Your task to perform on an android device: What's on my calendar tomorrow? Image 0: 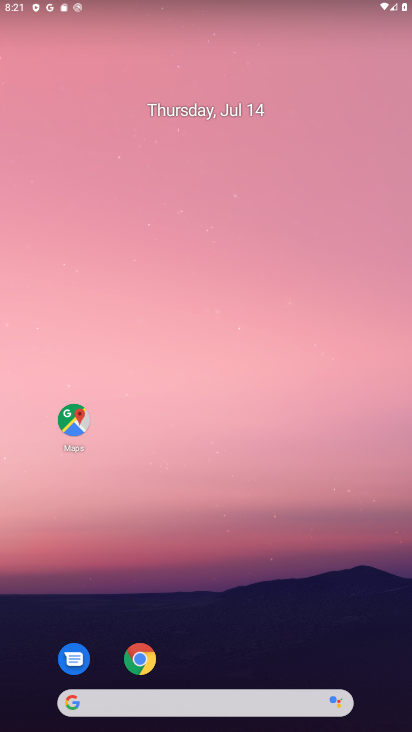
Step 0: drag from (200, 580) to (206, 197)
Your task to perform on an android device: What's on my calendar tomorrow? Image 1: 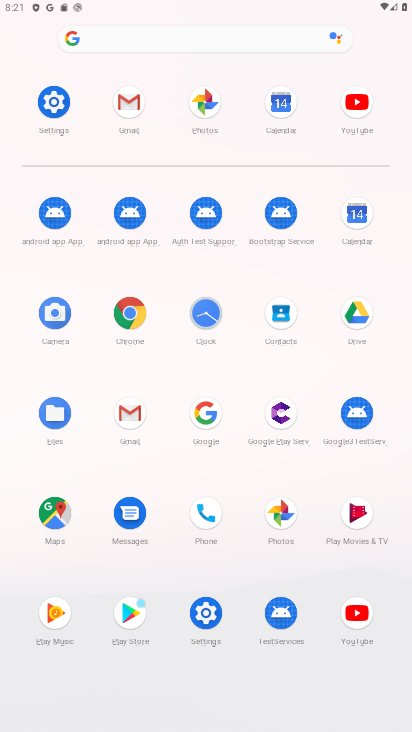
Step 1: click (278, 105)
Your task to perform on an android device: What's on my calendar tomorrow? Image 2: 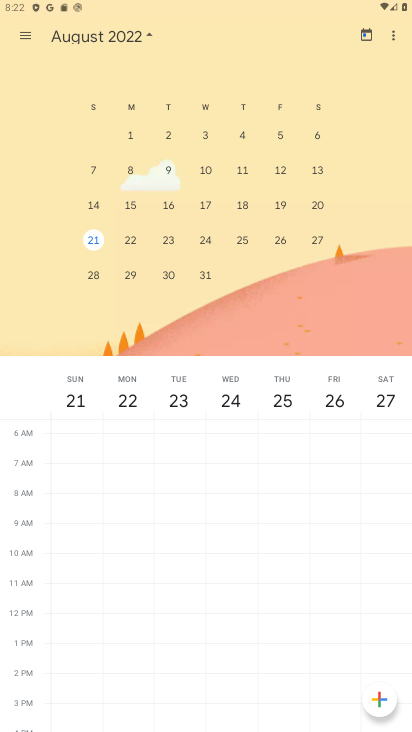
Step 2: click (25, 37)
Your task to perform on an android device: What's on my calendar tomorrow? Image 3: 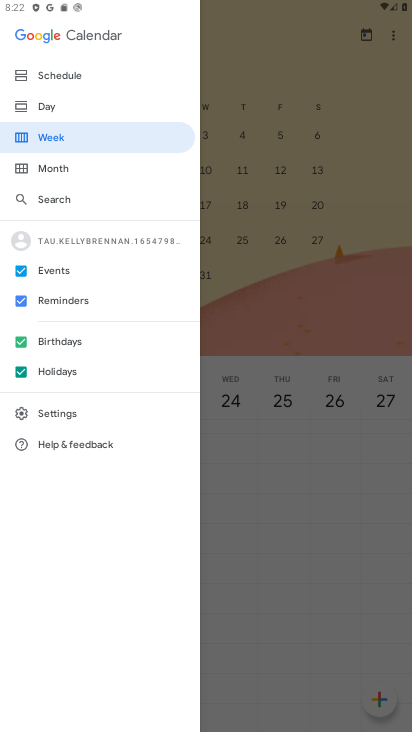
Step 3: click (54, 82)
Your task to perform on an android device: What's on my calendar tomorrow? Image 4: 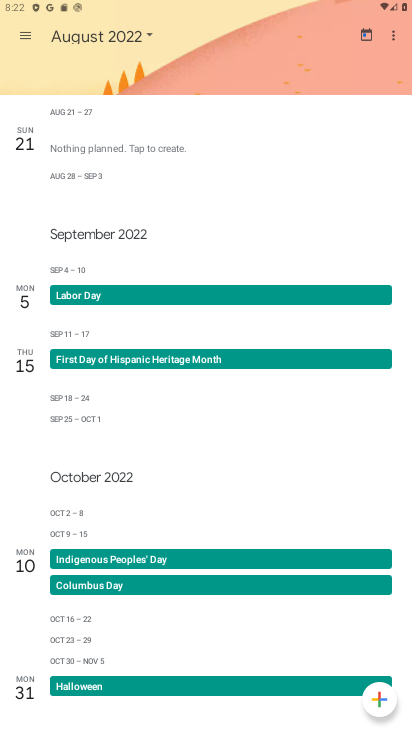
Step 4: click (90, 37)
Your task to perform on an android device: What's on my calendar tomorrow? Image 5: 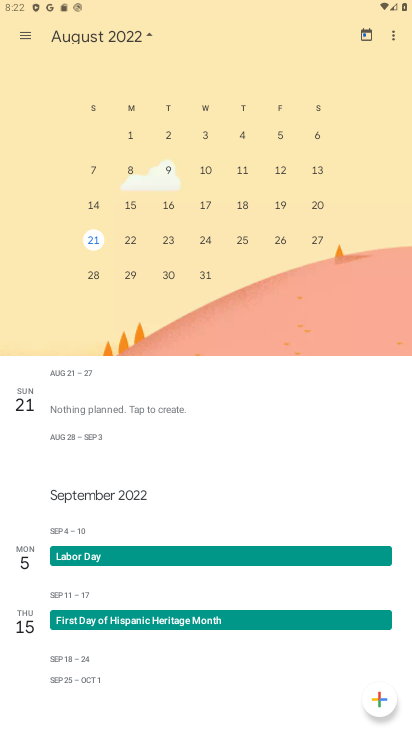
Step 5: drag from (64, 176) to (383, 134)
Your task to perform on an android device: What's on my calendar tomorrow? Image 6: 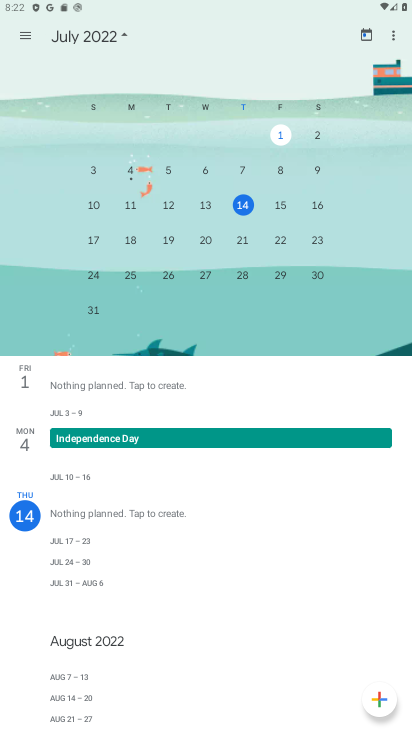
Step 6: click (280, 201)
Your task to perform on an android device: What's on my calendar tomorrow? Image 7: 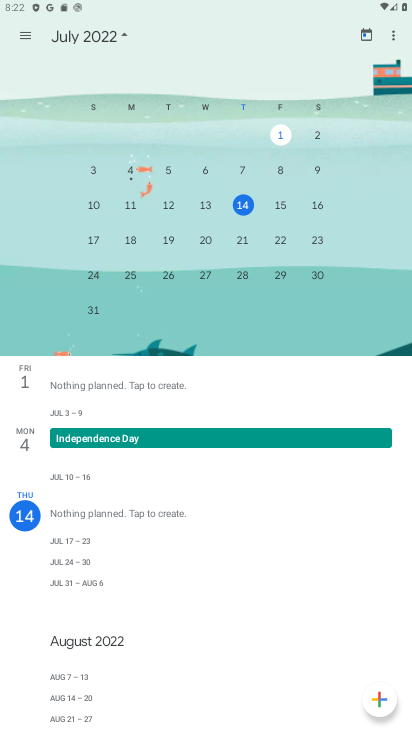
Step 7: click (280, 201)
Your task to perform on an android device: What's on my calendar tomorrow? Image 8: 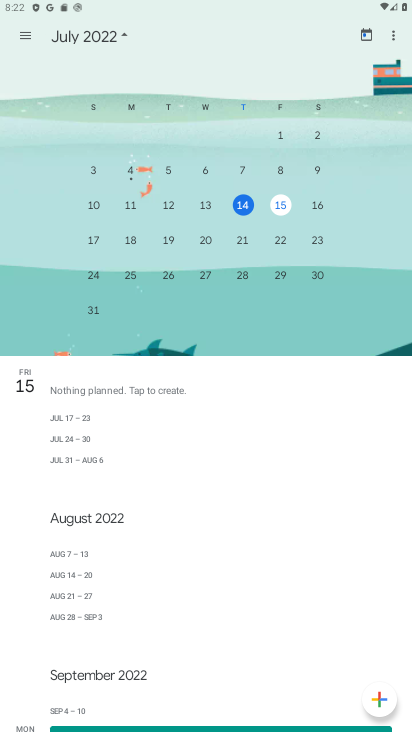
Step 8: task complete